Your task to perform on an android device: Open maps Image 0: 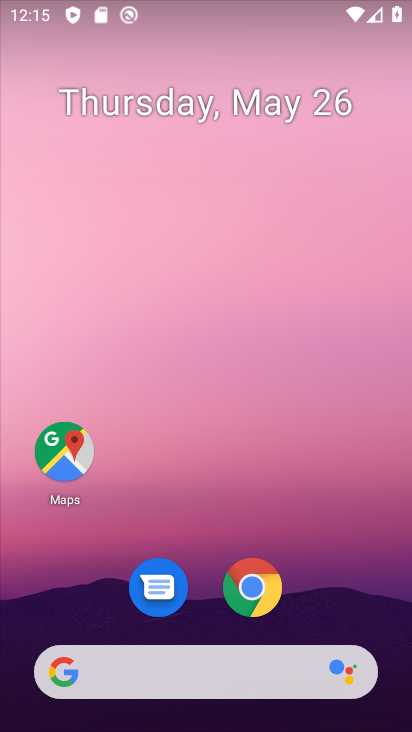
Step 0: drag from (375, 578) to (411, 406)
Your task to perform on an android device: Open maps Image 1: 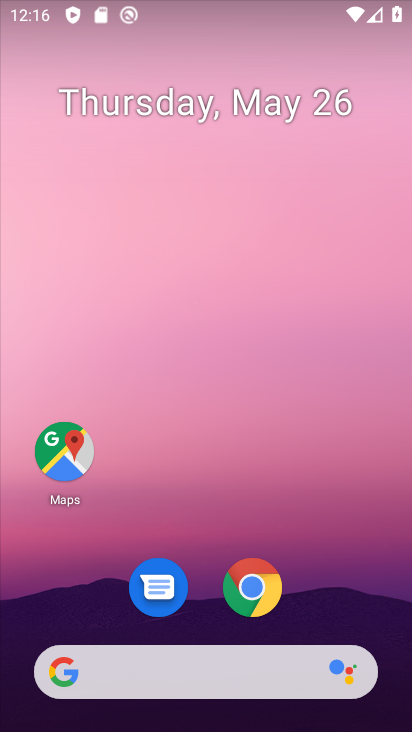
Step 1: drag from (371, 435) to (348, 82)
Your task to perform on an android device: Open maps Image 2: 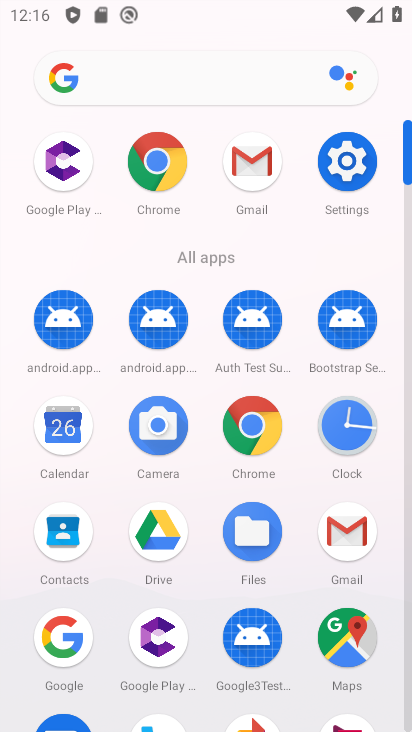
Step 2: click (358, 639)
Your task to perform on an android device: Open maps Image 3: 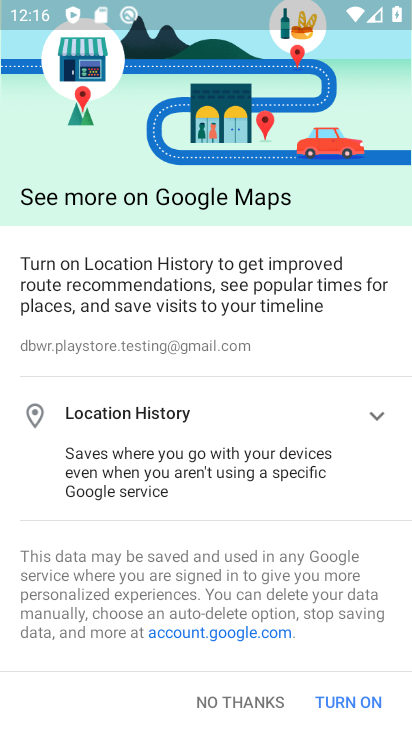
Step 3: task complete